Your task to perform on an android device: set default search engine in the chrome app Image 0: 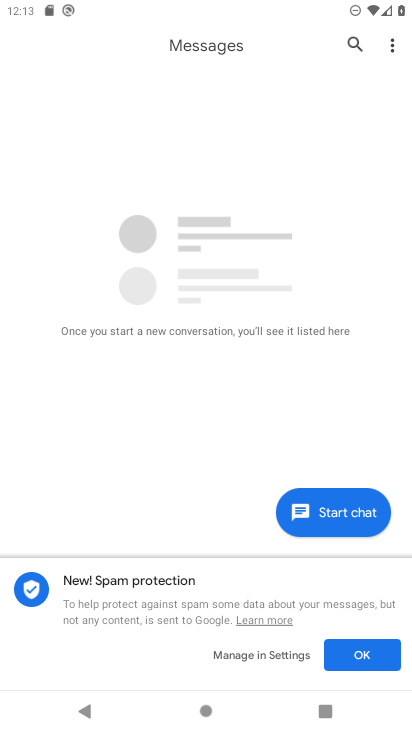
Step 0: press home button
Your task to perform on an android device: set default search engine in the chrome app Image 1: 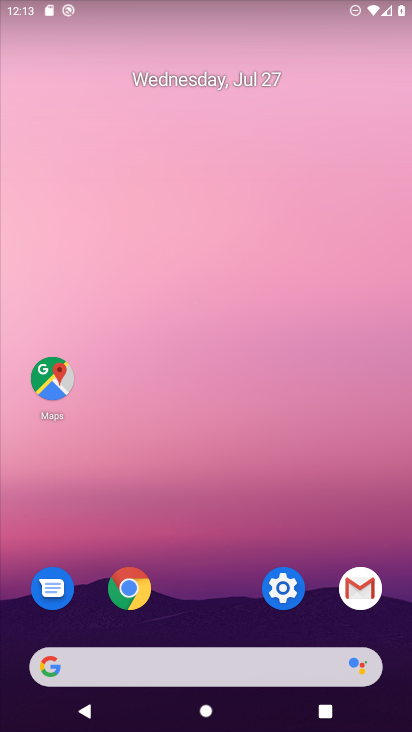
Step 1: click (115, 583)
Your task to perform on an android device: set default search engine in the chrome app Image 2: 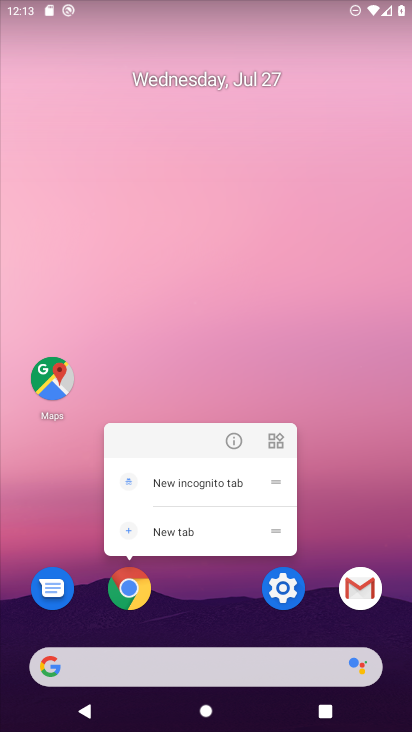
Step 2: click (130, 591)
Your task to perform on an android device: set default search engine in the chrome app Image 3: 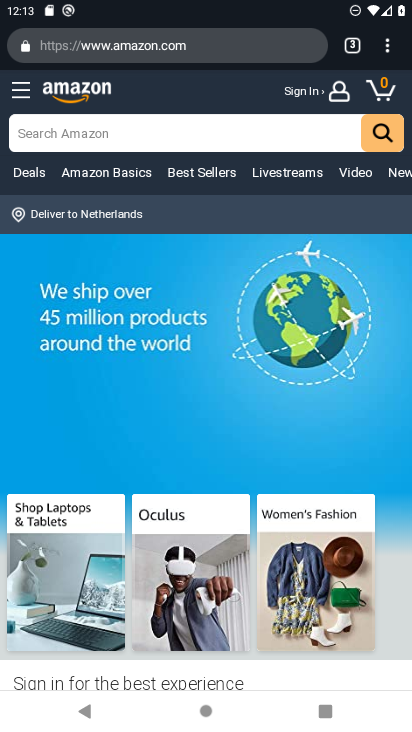
Step 3: click (390, 54)
Your task to perform on an android device: set default search engine in the chrome app Image 4: 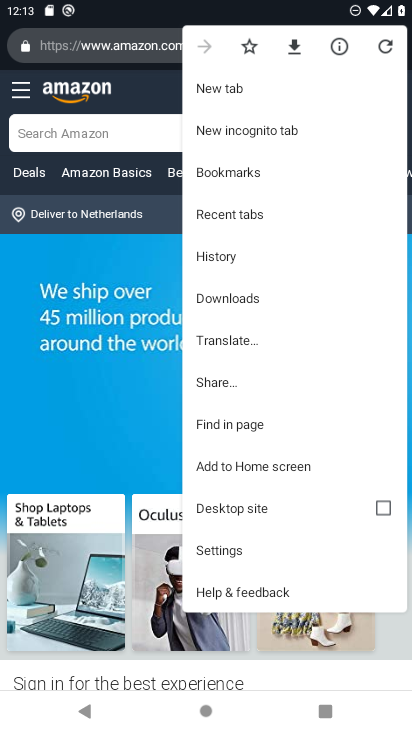
Step 4: click (231, 543)
Your task to perform on an android device: set default search engine in the chrome app Image 5: 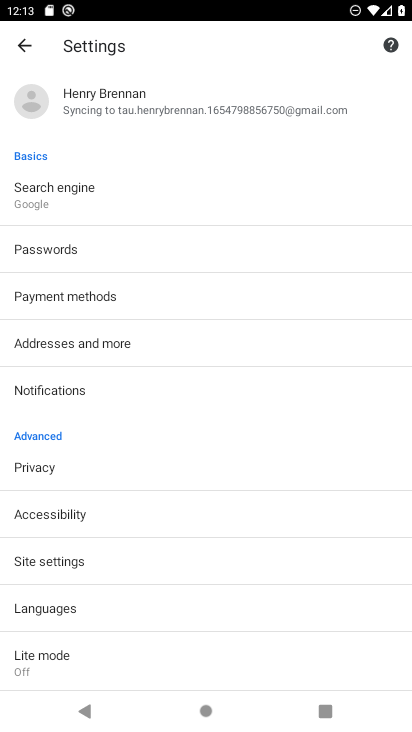
Step 5: click (91, 200)
Your task to perform on an android device: set default search engine in the chrome app Image 6: 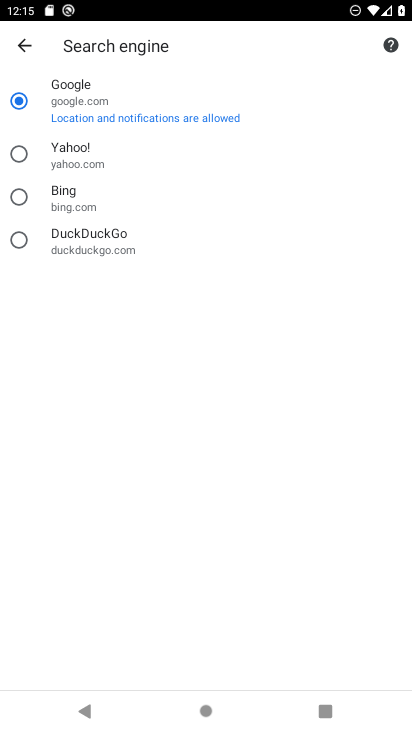
Step 6: task complete